Your task to perform on an android device: When is my next meeting? Image 0: 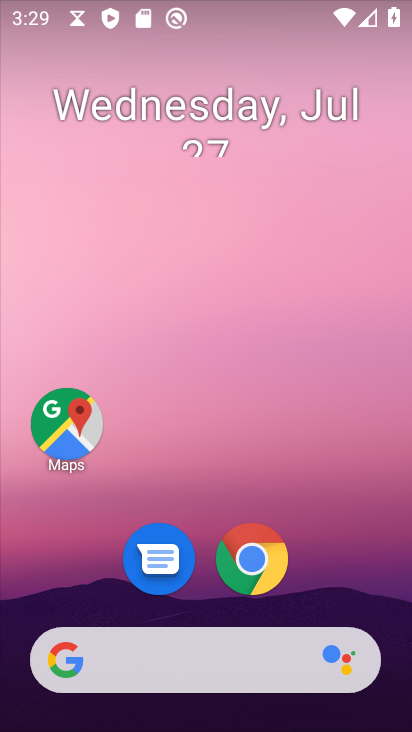
Step 0: drag from (75, 584) to (202, 6)
Your task to perform on an android device: When is my next meeting? Image 1: 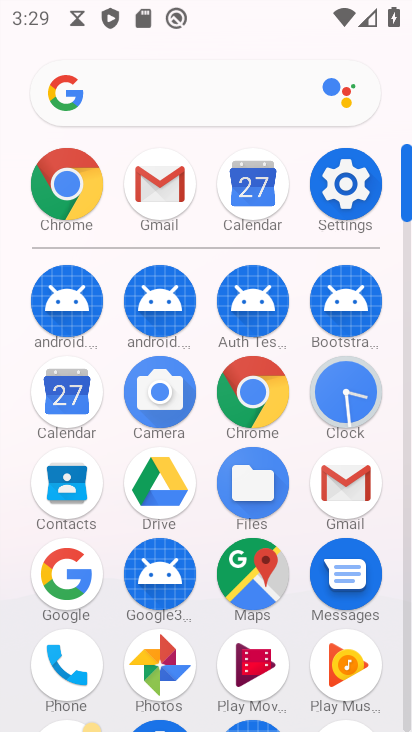
Step 1: click (179, 104)
Your task to perform on an android device: When is my next meeting? Image 2: 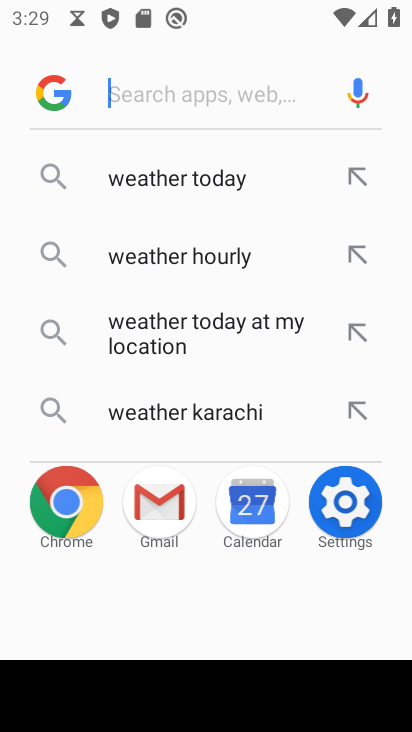
Step 2: press back button
Your task to perform on an android device: When is my next meeting? Image 3: 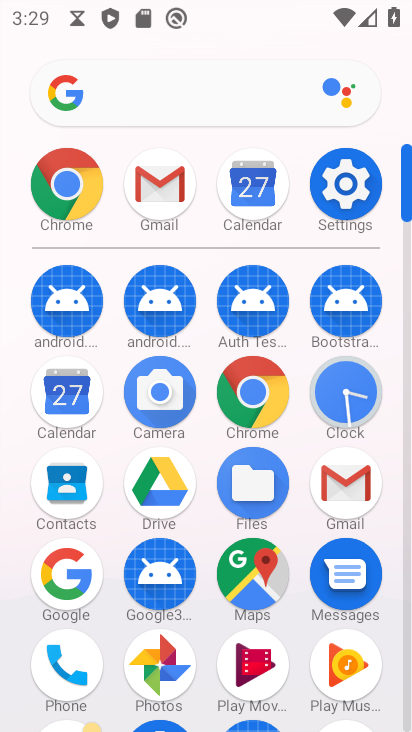
Step 3: click (71, 392)
Your task to perform on an android device: When is my next meeting? Image 4: 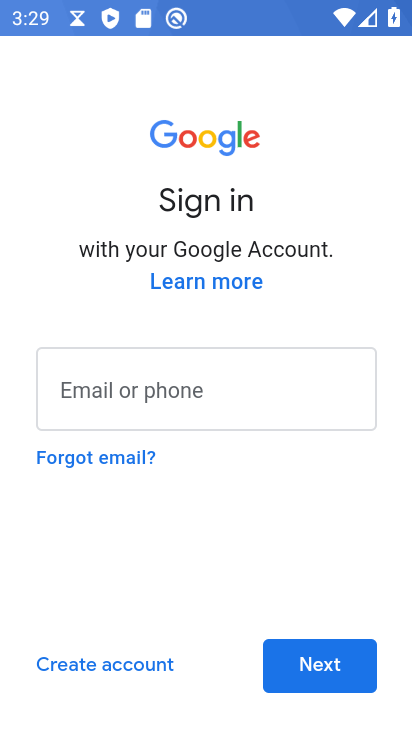
Step 4: task complete